Your task to perform on an android device: Open battery settings Image 0: 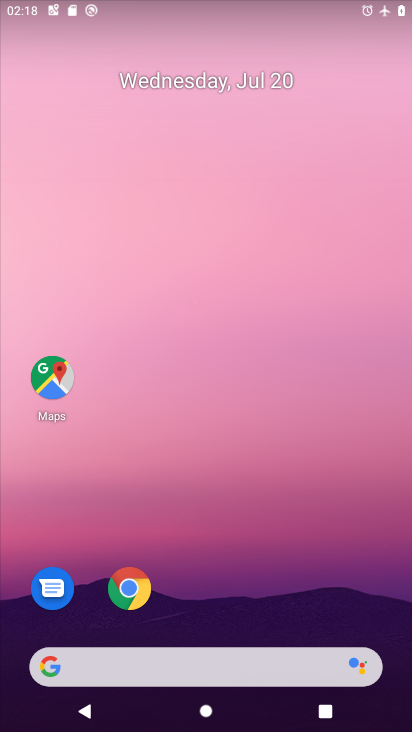
Step 0: drag from (203, 604) to (257, 246)
Your task to perform on an android device: Open battery settings Image 1: 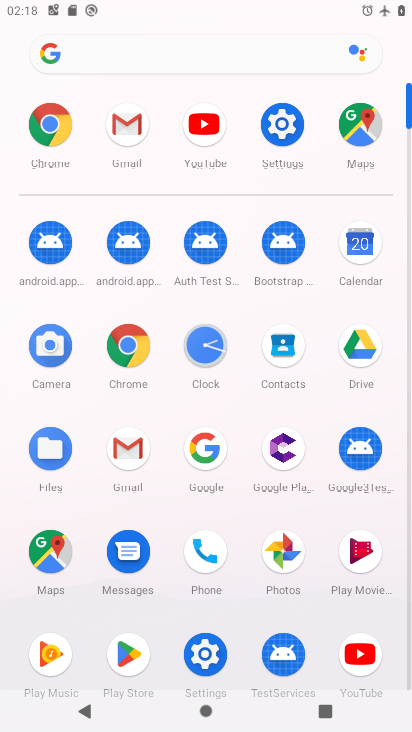
Step 1: click (275, 138)
Your task to perform on an android device: Open battery settings Image 2: 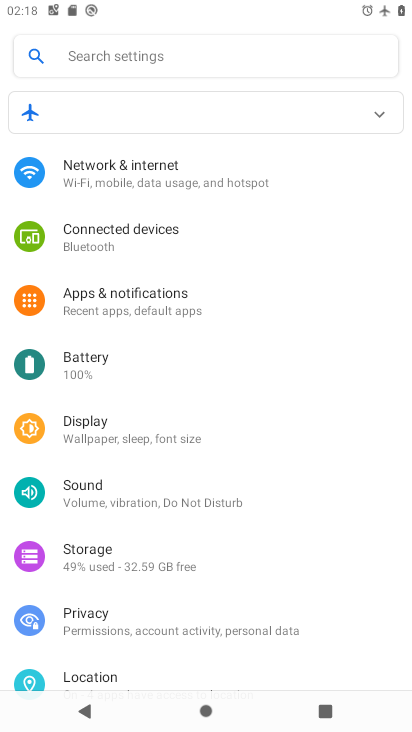
Step 2: click (98, 359)
Your task to perform on an android device: Open battery settings Image 3: 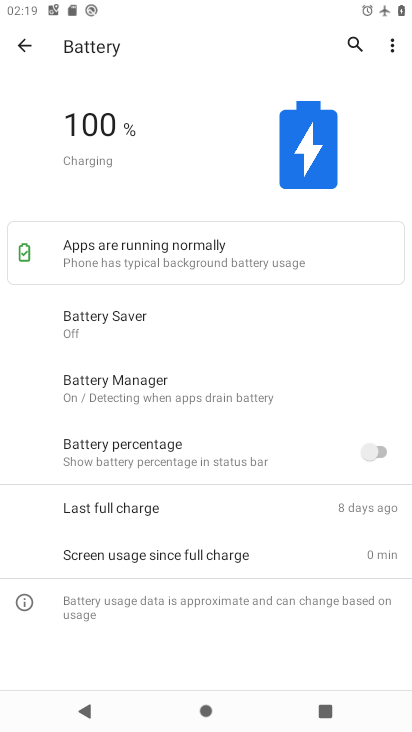
Step 3: task complete